Your task to perform on an android device: move a message to another label in the gmail app Image 0: 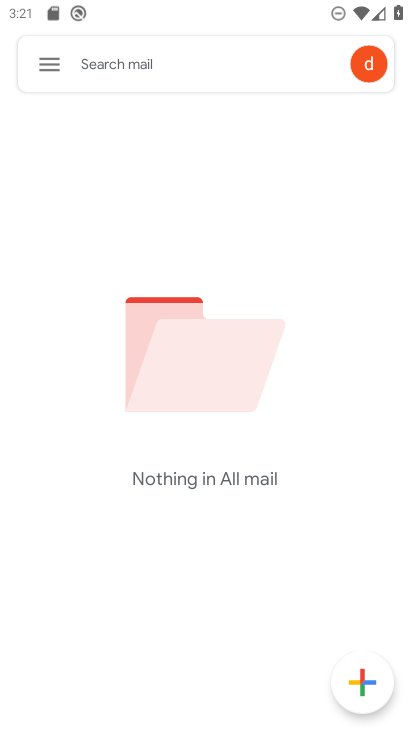
Step 0: press back button
Your task to perform on an android device: move a message to another label in the gmail app Image 1: 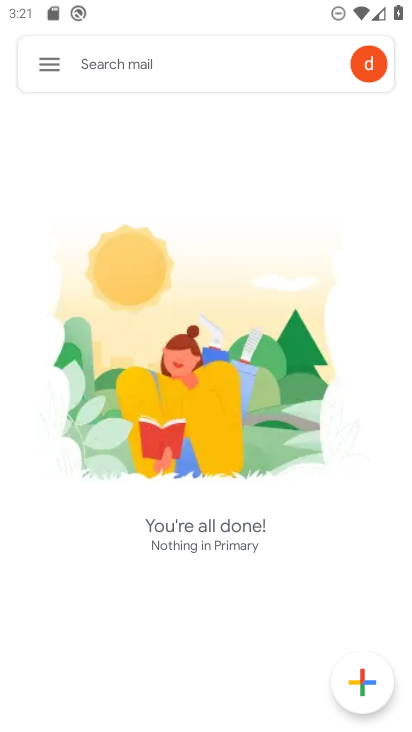
Step 1: press home button
Your task to perform on an android device: move a message to another label in the gmail app Image 2: 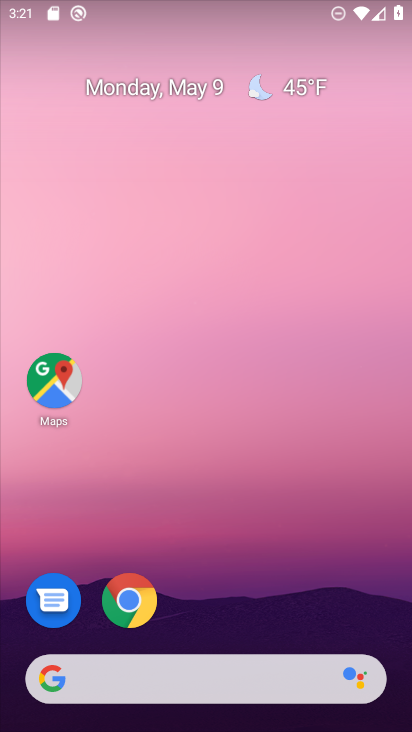
Step 2: drag from (236, 621) to (202, 31)
Your task to perform on an android device: move a message to another label in the gmail app Image 3: 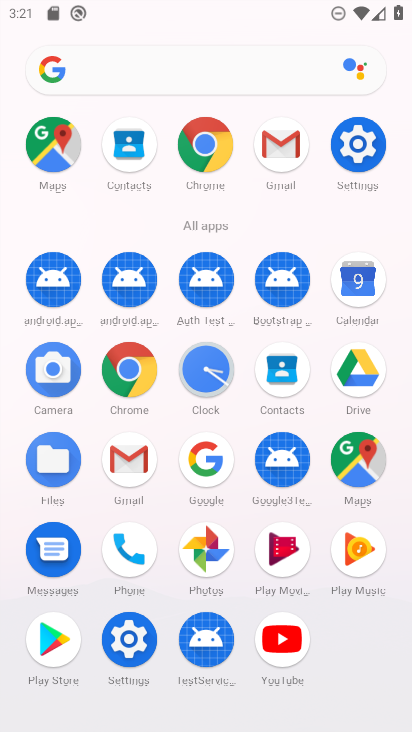
Step 3: drag from (15, 567) to (4, 213)
Your task to perform on an android device: move a message to another label in the gmail app Image 4: 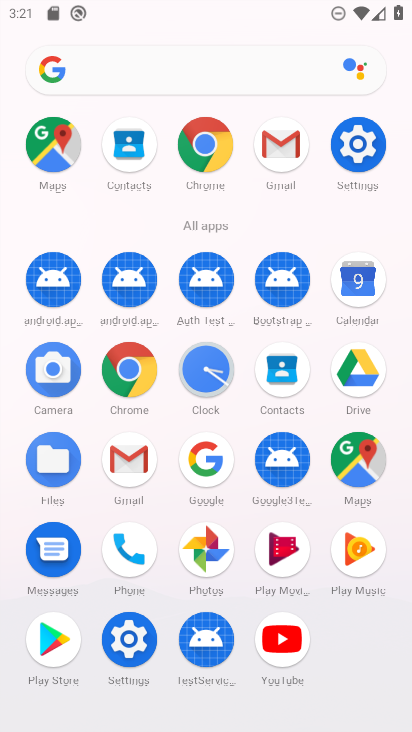
Step 4: click (126, 454)
Your task to perform on an android device: move a message to another label in the gmail app Image 5: 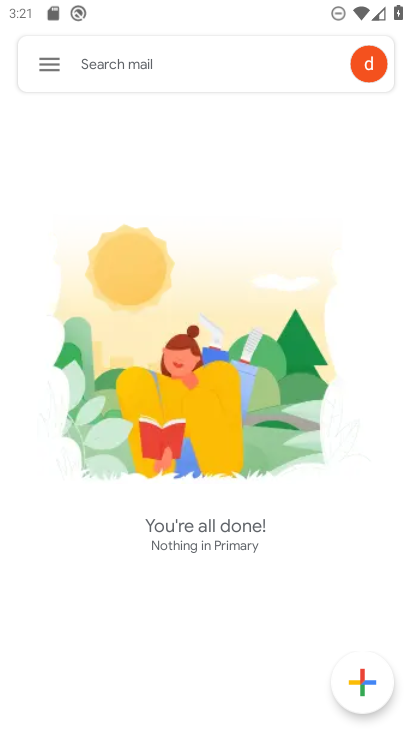
Step 5: click (62, 60)
Your task to perform on an android device: move a message to another label in the gmail app Image 6: 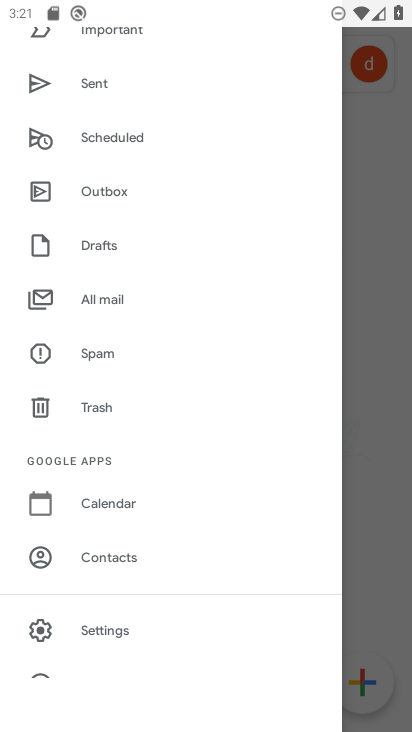
Step 6: click (122, 303)
Your task to perform on an android device: move a message to another label in the gmail app Image 7: 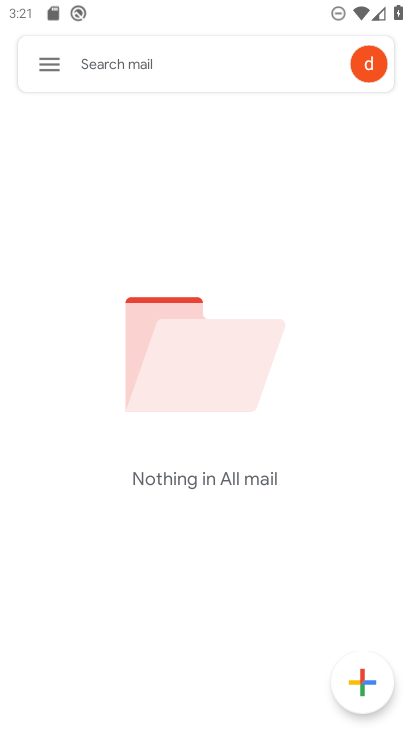
Step 7: click (42, 56)
Your task to perform on an android device: move a message to another label in the gmail app Image 8: 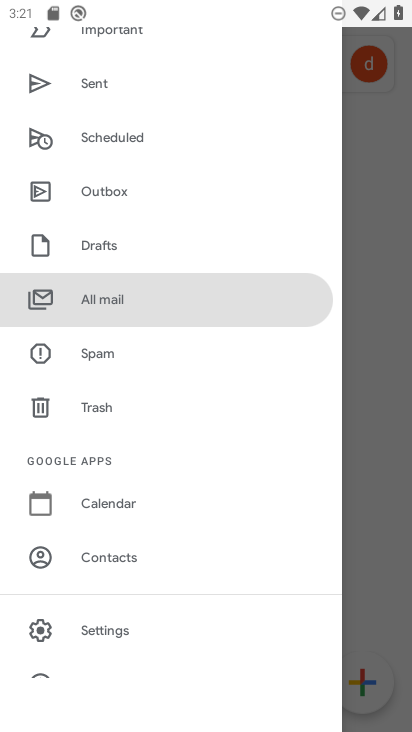
Step 8: click (98, 298)
Your task to perform on an android device: move a message to another label in the gmail app Image 9: 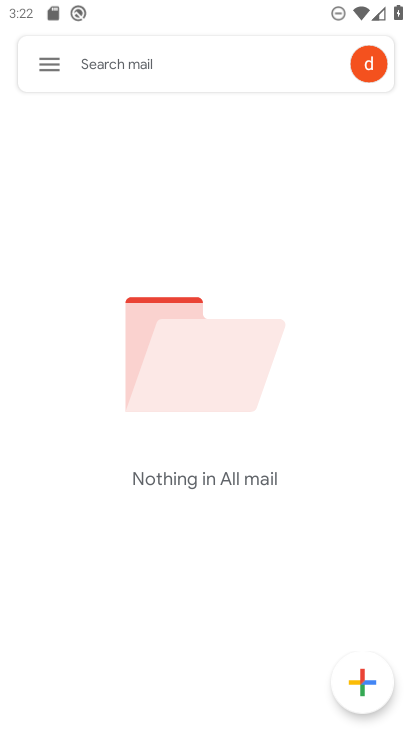
Step 9: drag from (273, 522) to (262, 133)
Your task to perform on an android device: move a message to another label in the gmail app Image 10: 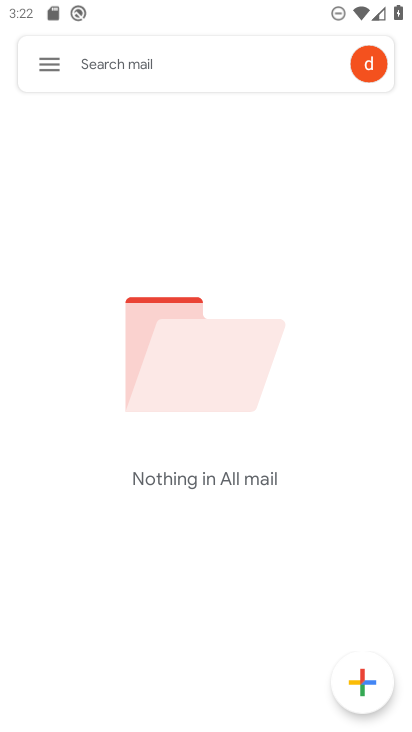
Step 10: click (29, 64)
Your task to perform on an android device: move a message to another label in the gmail app Image 11: 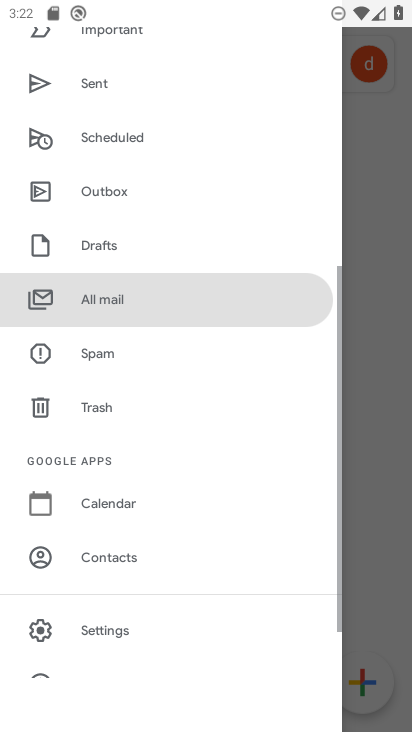
Step 11: drag from (171, 143) to (204, 619)
Your task to perform on an android device: move a message to another label in the gmail app Image 12: 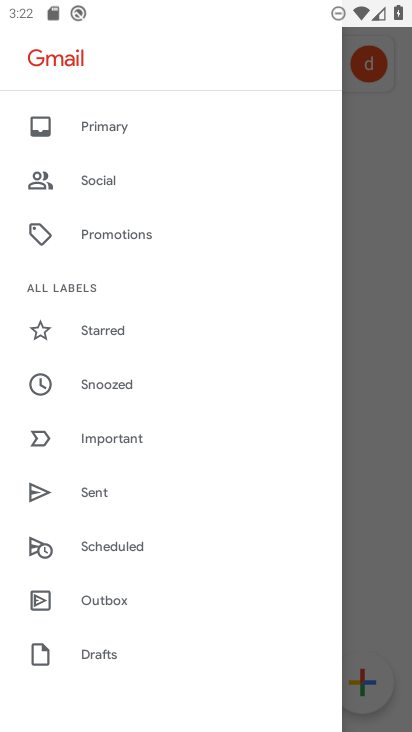
Step 12: click (153, 133)
Your task to perform on an android device: move a message to another label in the gmail app Image 13: 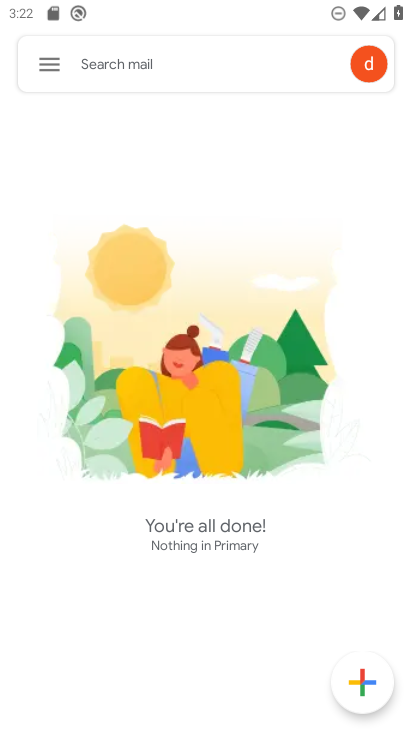
Step 13: drag from (202, 561) to (199, 107)
Your task to perform on an android device: move a message to another label in the gmail app Image 14: 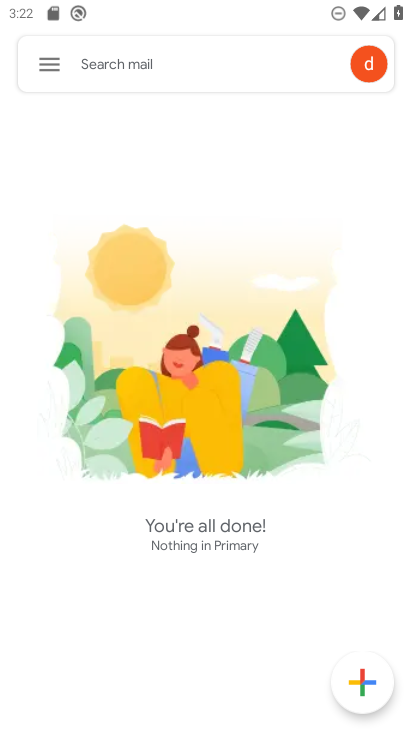
Step 14: click (43, 60)
Your task to perform on an android device: move a message to another label in the gmail app Image 15: 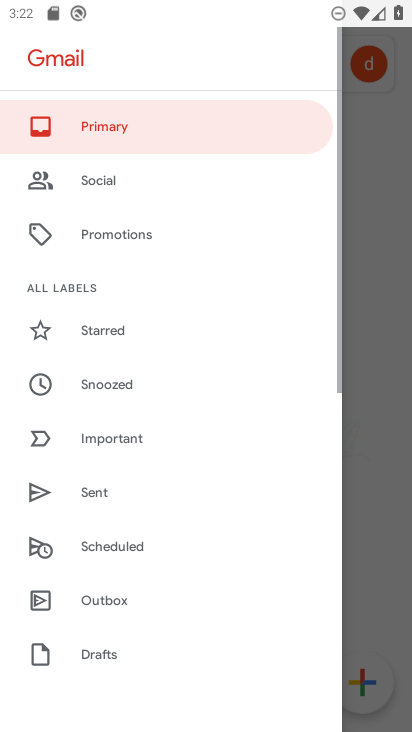
Step 15: drag from (146, 590) to (152, 198)
Your task to perform on an android device: move a message to another label in the gmail app Image 16: 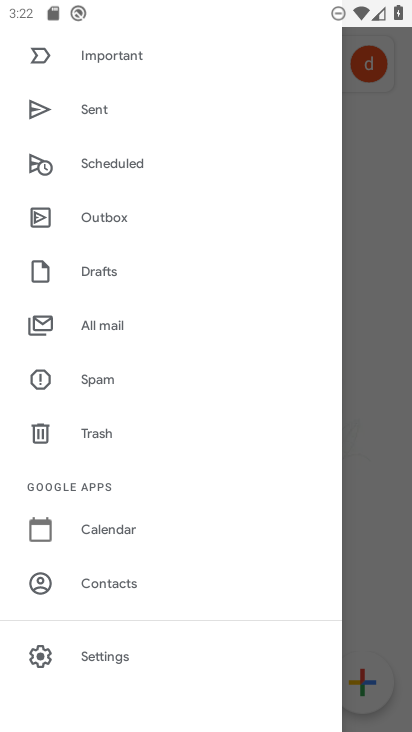
Step 16: click (136, 319)
Your task to perform on an android device: move a message to another label in the gmail app Image 17: 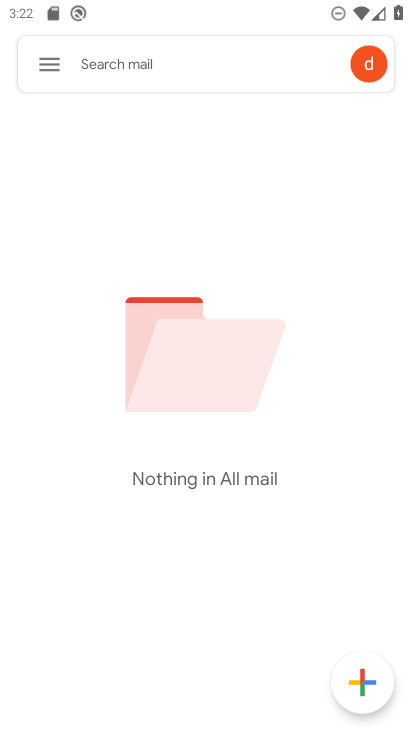
Step 17: click (42, 70)
Your task to perform on an android device: move a message to another label in the gmail app Image 18: 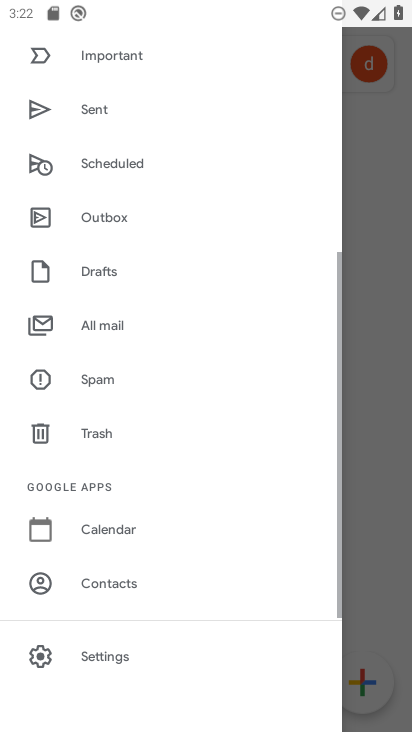
Step 18: drag from (188, 191) to (240, 632)
Your task to perform on an android device: move a message to another label in the gmail app Image 19: 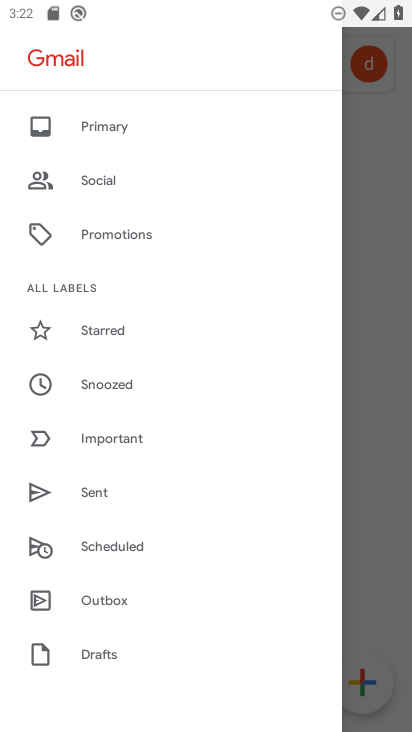
Step 19: click (118, 124)
Your task to perform on an android device: move a message to another label in the gmail app Image 20: 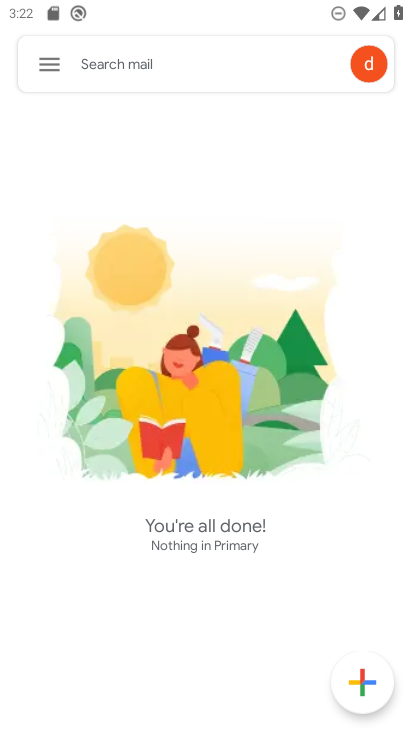
Step 20: click (41, 59)
Your task to perform on an android device: move a message to another label in the gmail app Image 21: 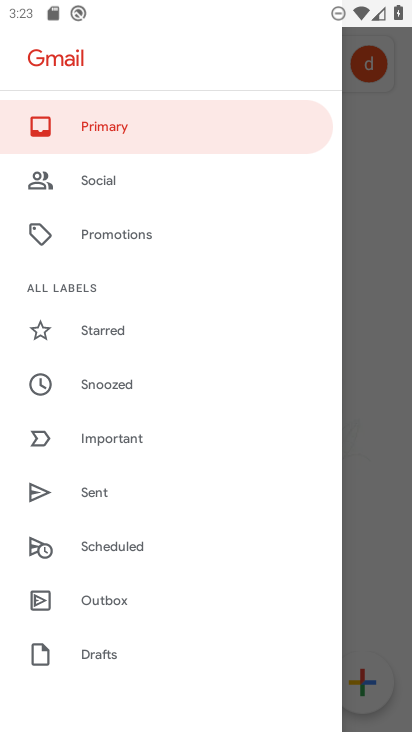
Step 21: drag from (179, 578) to (168, 133)
Your task to perform on an android device: move a message to another label in the gmail app Image 22: 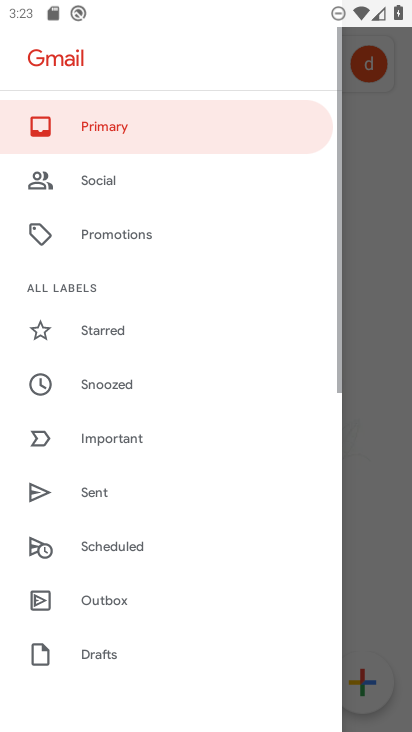
Step 22: drag from (128, 595) to (165, 182)
Your task to perform on an android device: move a message to another label in the gmail app Image 23: 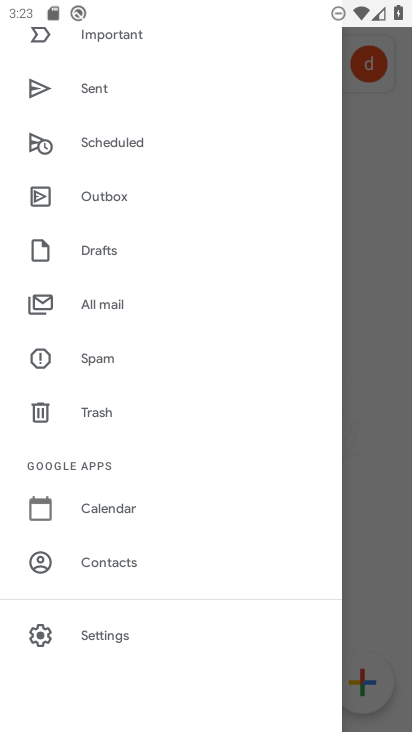
Step 23: drag from (168, 599) to (178, 204)
Your task to perform on an android device: move a message to another label in the gmail app Image 24: 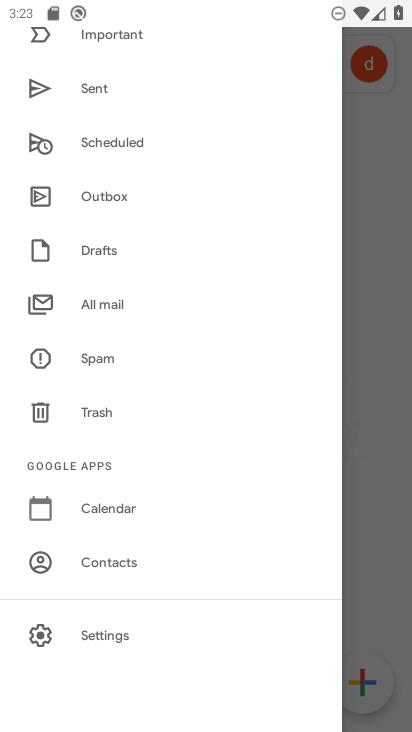
Step 24: click (344, 312)
Your task to perform on an android device: move a message to another label in the gmail app Image 25: 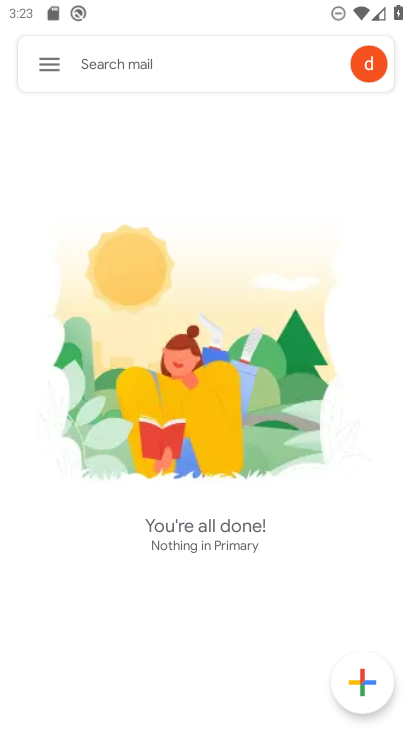
Step 25: task complete